Your task to perform on an android device: uninstall "Google Calendar" Image 0: 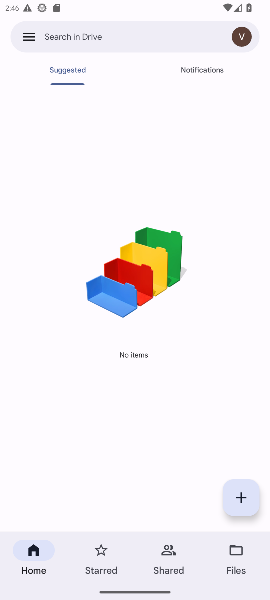
Step 0: press home button
Your task to perform on an android device: uninstall "Google Calendar" Image 1: 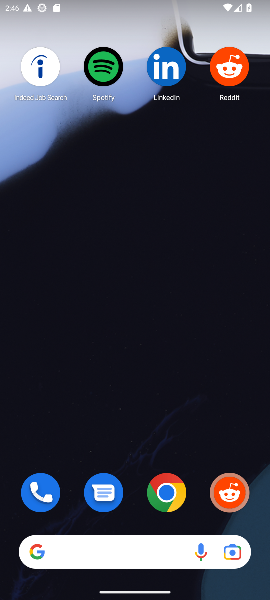
Step 1: drag from (133, 526) to (124, 101)
Your task to perform on an android device: uninstall "Google Calendar" Image 2: 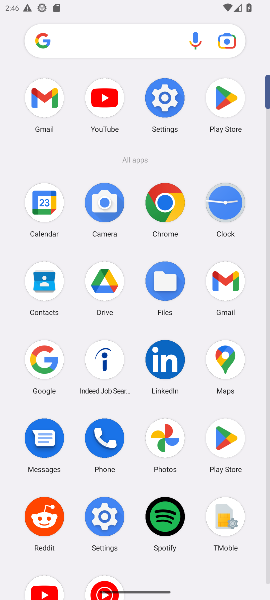
Step 2: click (224, 443)
Your task to perform on an android device: uninstall "Google Calendar" Image 3: 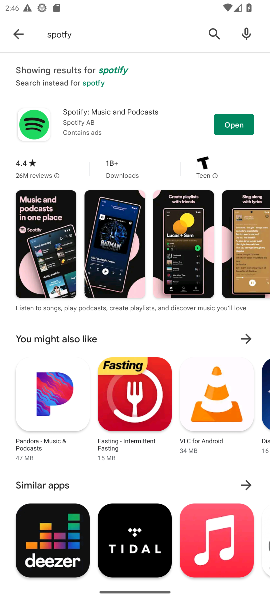
Step 3: click (204, 41)
Your task to perform on an android device: uninstall "Google Calendar" Image 4: 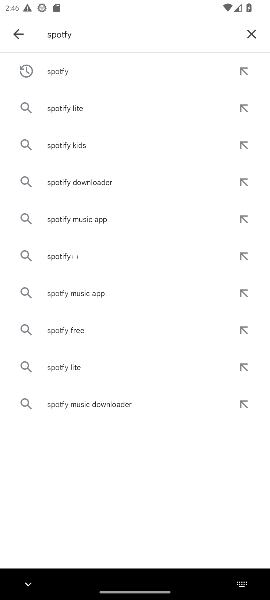
Step 4: click (244, 32)
Your task to perform on an android device: uninstall "Google Calendar" Image 5: 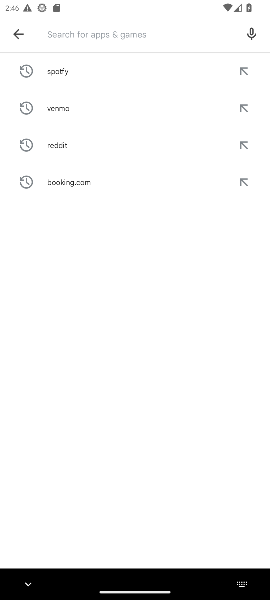
Step 5: type "google calnedar"
Your task to perform on an android device: uninstall "Google Calendar" Image 6: 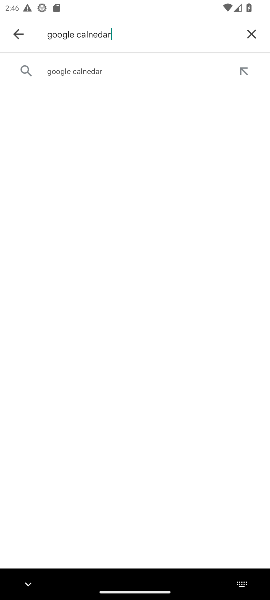
Step 6: click (109, 75)
Your task to perform on an android device: uninstall "Google Calendar" Image 7: 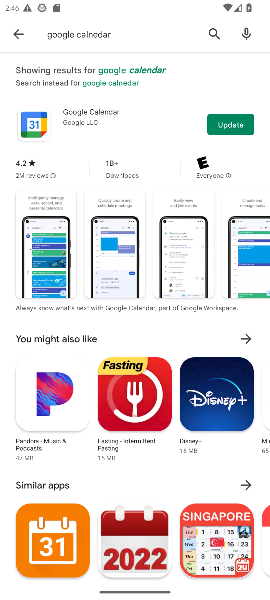
Step 7: click (221, 119)
Your task to perform on an android device: uninstall "Google Calendar" Image 8: 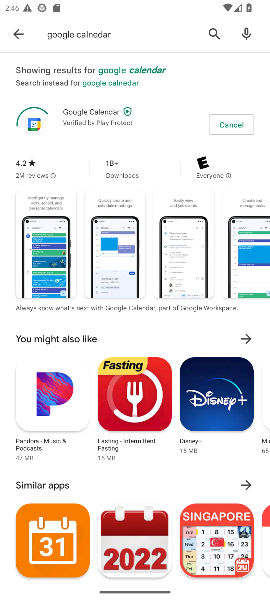
Step 8: task complete